Your task to perform on an android device: Open my contact list Image 0: 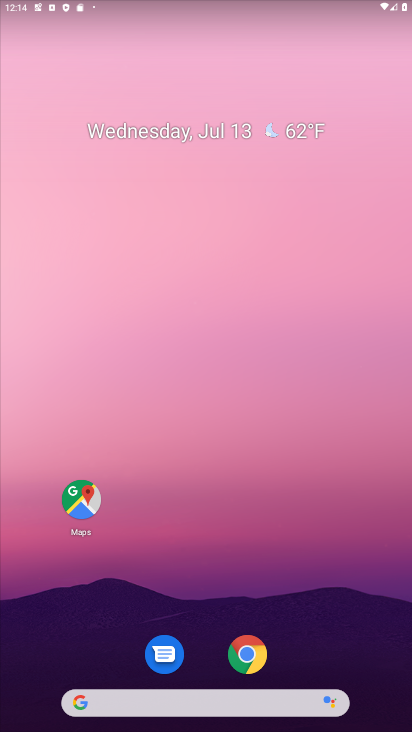
Step 0: drag from (268, 699) to (250, 132)
Your task to perform on an android device: Open my contact list Image 1: 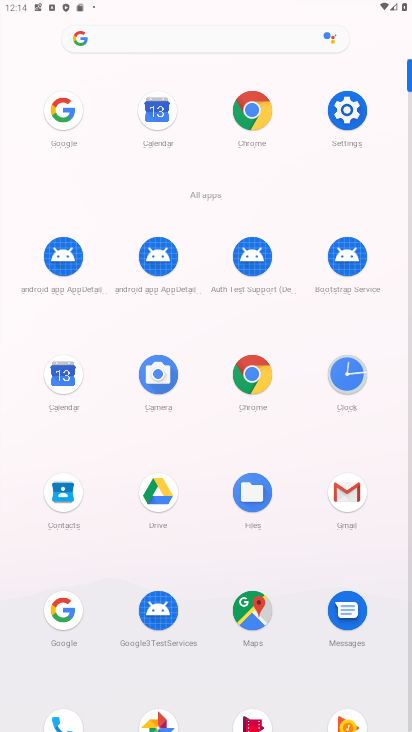
Step 1: click (60, 492)
Your task to perform on an android device: Open my contact list Image 2: 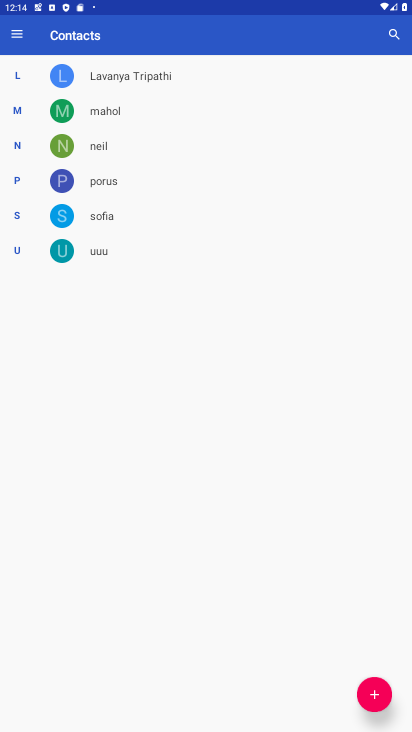
Step 2: click (378, 696)
Your task to perform on an android device: Open my contact list Image 3: 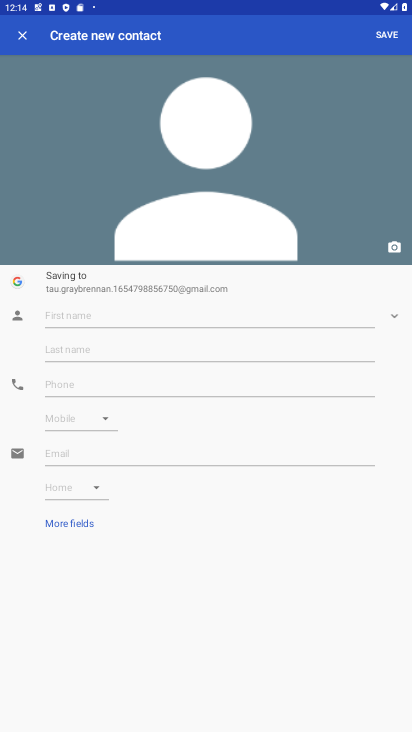
Step 3: type "vishal"
Your task to perform on an android device: Open my contact list Image 4: 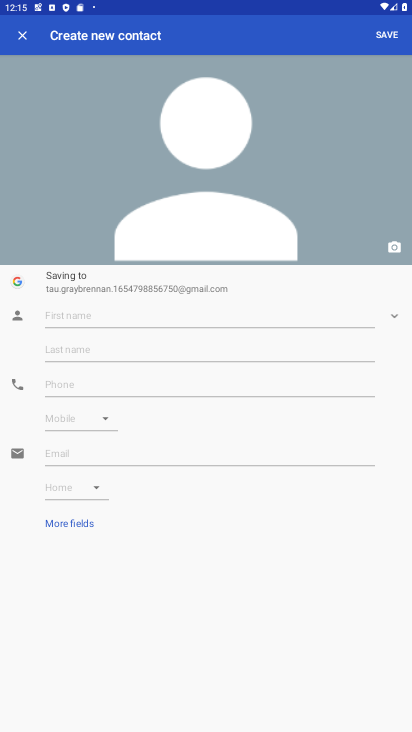
Step 4: click (190, 318)
Your task to perform on an android device: Open my contact list Image 5: 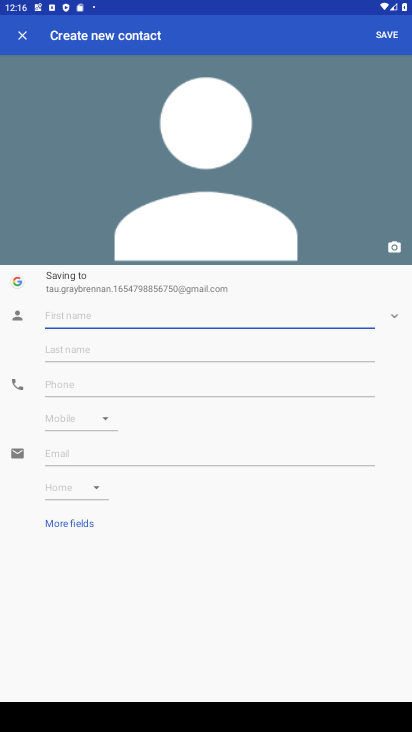
Step 5: type "vishal"
Your task to perform on an android device: Open my contact list Image 6: 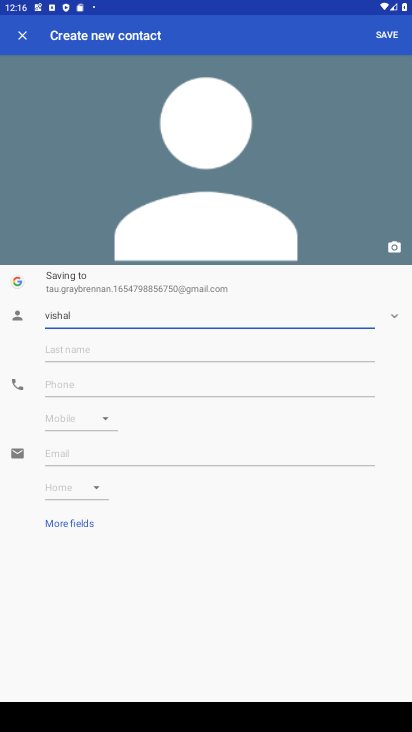
Step 6: click (73, 387)
Your task to perform on an android device: Open my contact list Image 7: 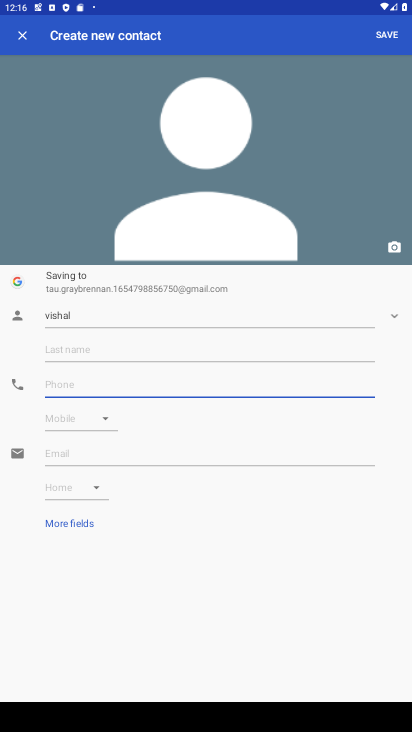
Step 7: type "876567876"
Your task to perform on an android device: Open my contact list Image 8: 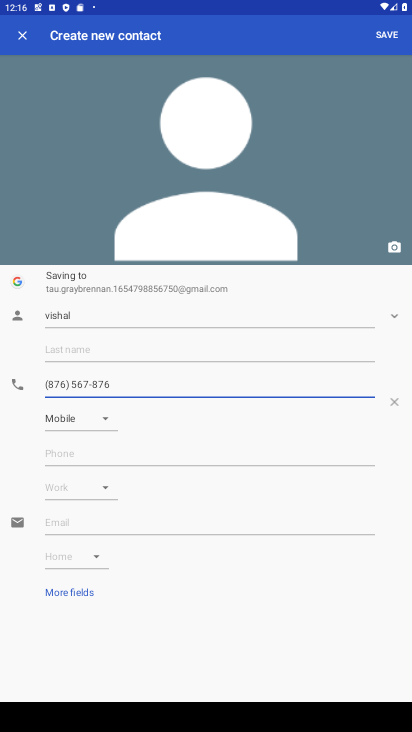
Step 8: click (380, 38)
Your task to perform on an android device: Open my contact list Image 9: 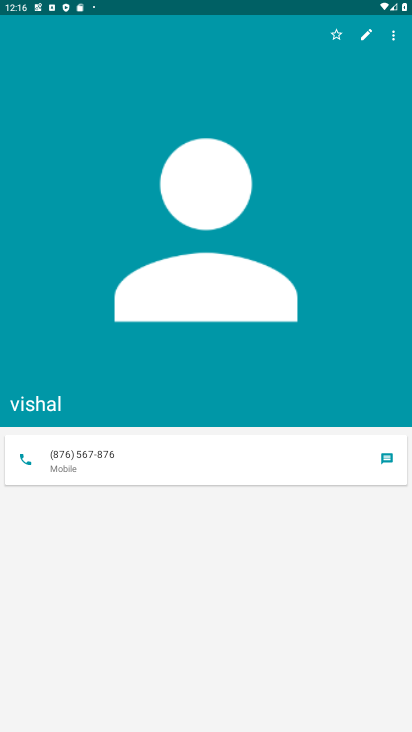
Step 9: task complete